Your task to perform on an android device: change alarm snooze length Image 0: 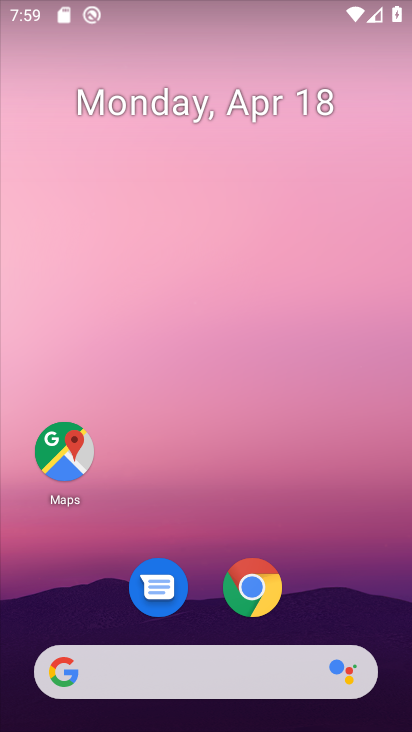
Step 0: drag from (227, 513) to (227, 24)
Your task to perform on an android device: change alarm snooze length Image 1: 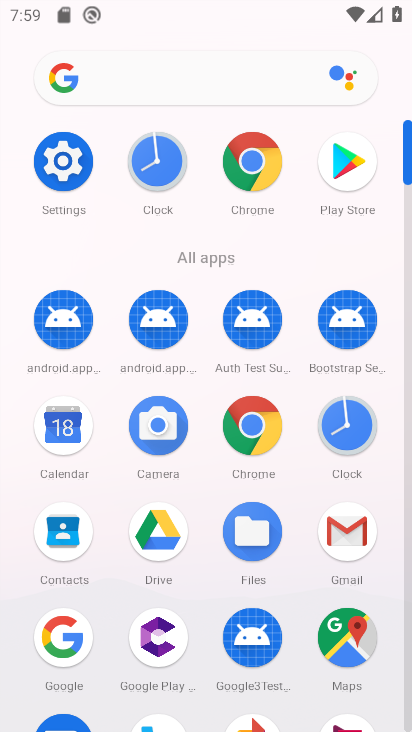
Step 1: click (359, 424)
Your task to perform on an android device: change alarm snooze length Image 2: 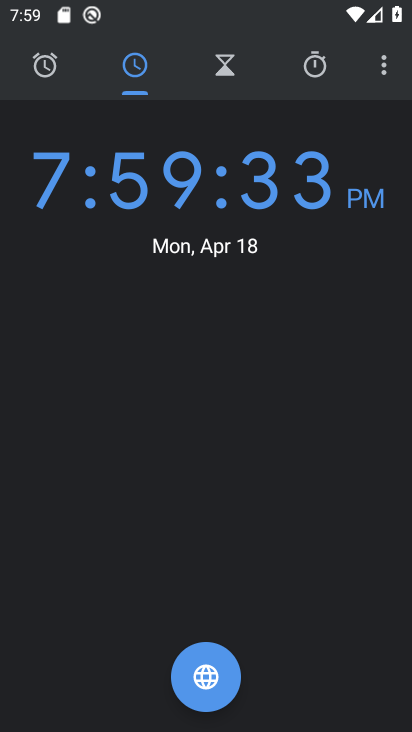
Step 2: click (377, 76)
Your task to perform on an android device: change alarm snooze length Image 3: 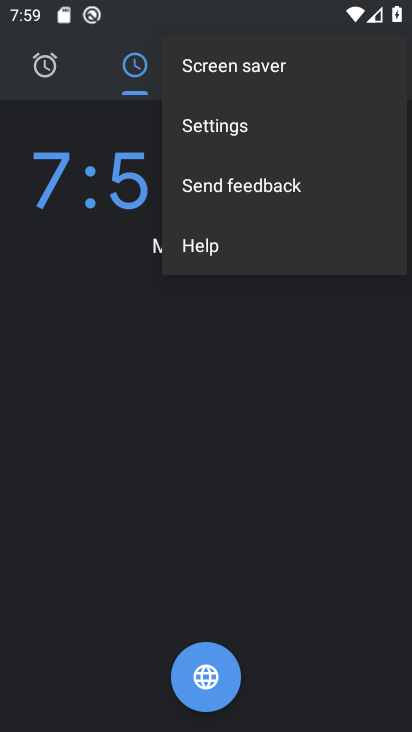
Step 3: click (301, 120)
Your task to perform on an android device: change alarm snooze length Image 4: 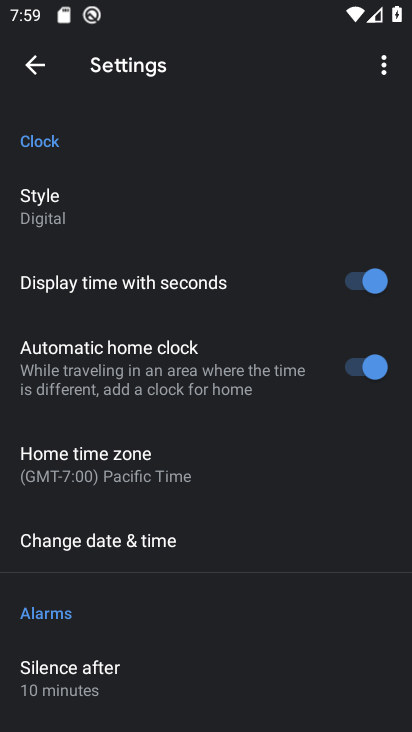
Step 4: drag from (160, 551) to (189, 180)
Your task to perform on an android device: change alarm snooze length Image 5: 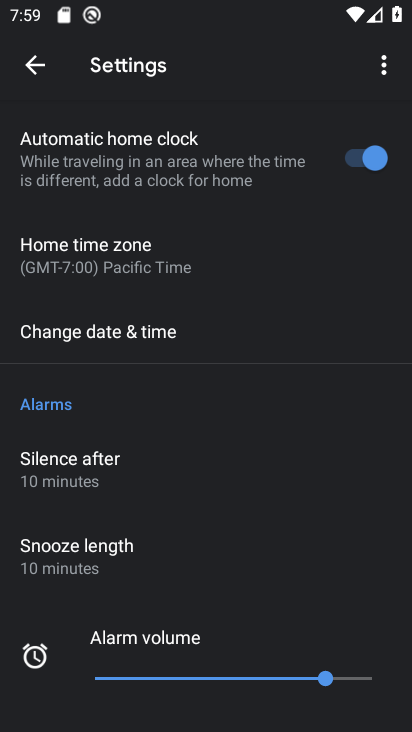
Step 5: click (188, 565)
Your task to perform on an android device: change alarm snooze length Image 6: 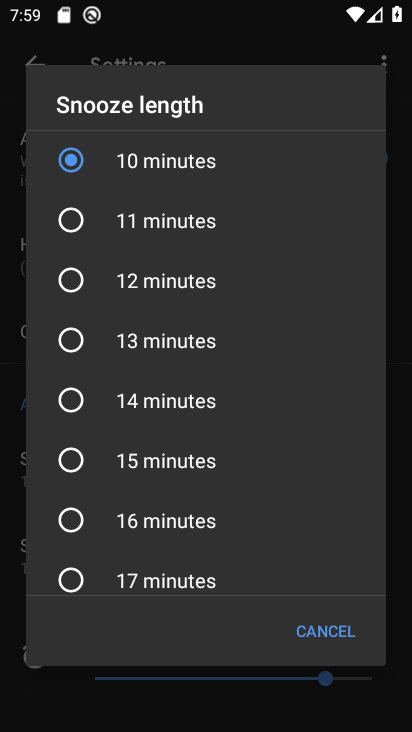
Step 6: click (153, 533)
Your task to perform on an android device: change alarm snooze length Image 7: 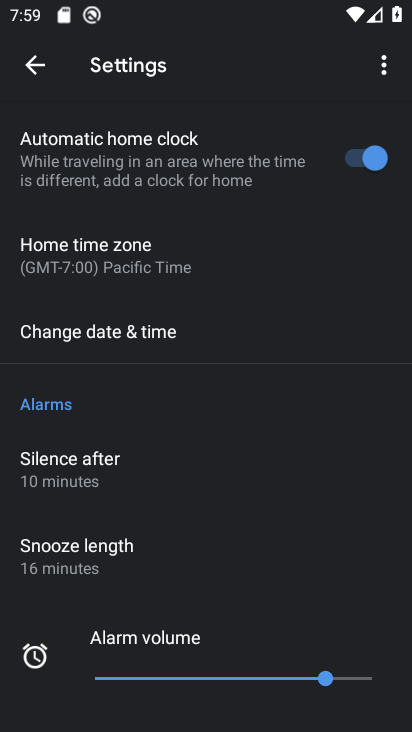
Step 7: task complete